Your task to perform on an android device: open app "Upside-Cash back on gas & food" (install if not already installed) and go to login screen Image 0: 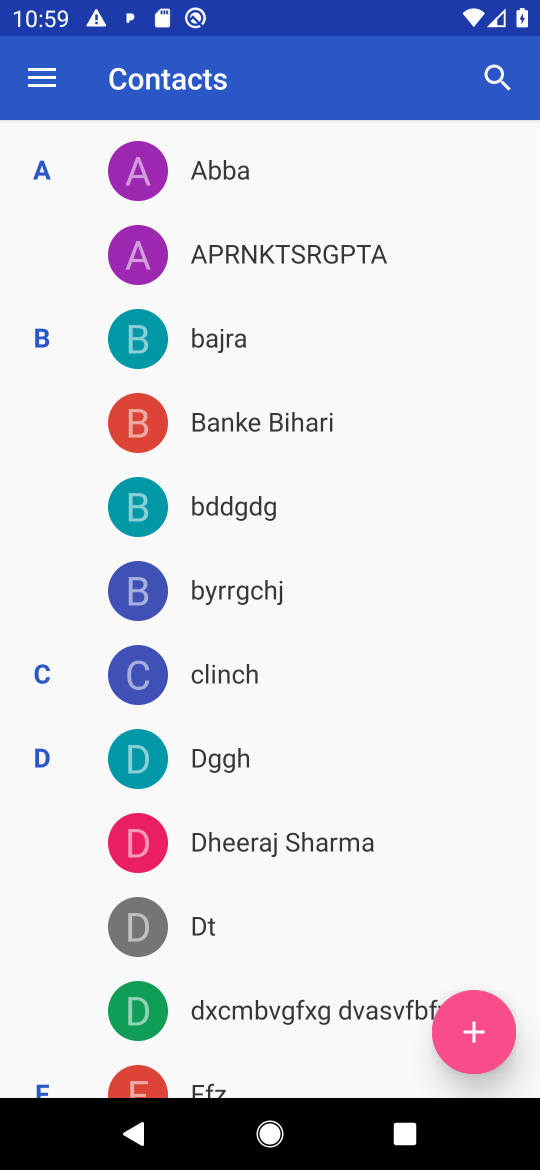
Step 0: press home button
Your task to perform on an android device: open app "Upside-Cash back on gas & food" (install if not already installed) and go to login screen Image 1: 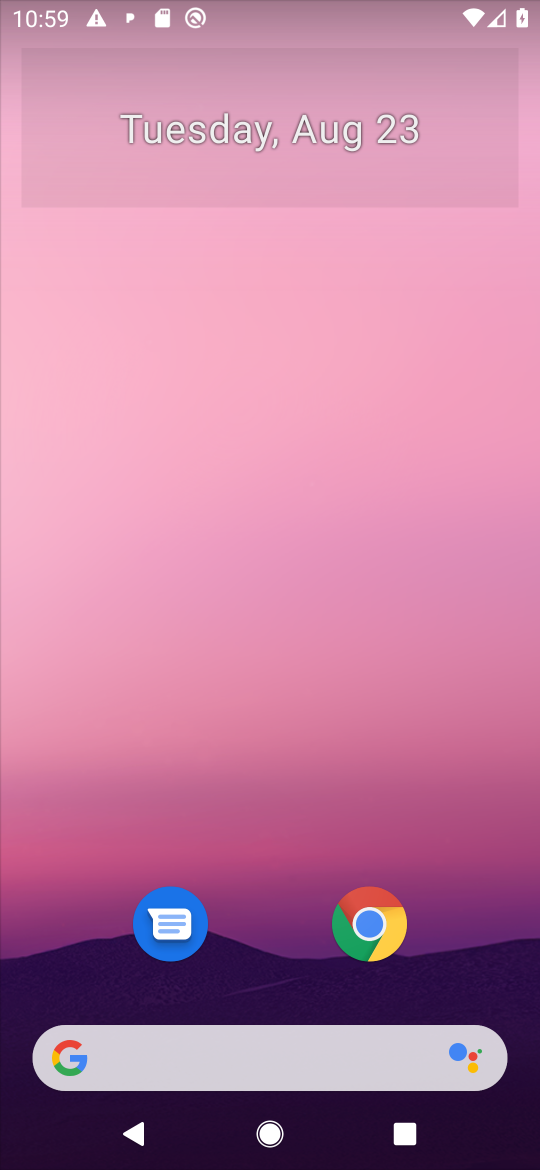
Step 1: drag from (457, 946) to (441, 125)
Your task to perform on an android device: open app "Upside-Cash back on gas & food" (install if not already installed) and go to login screen Image 2: 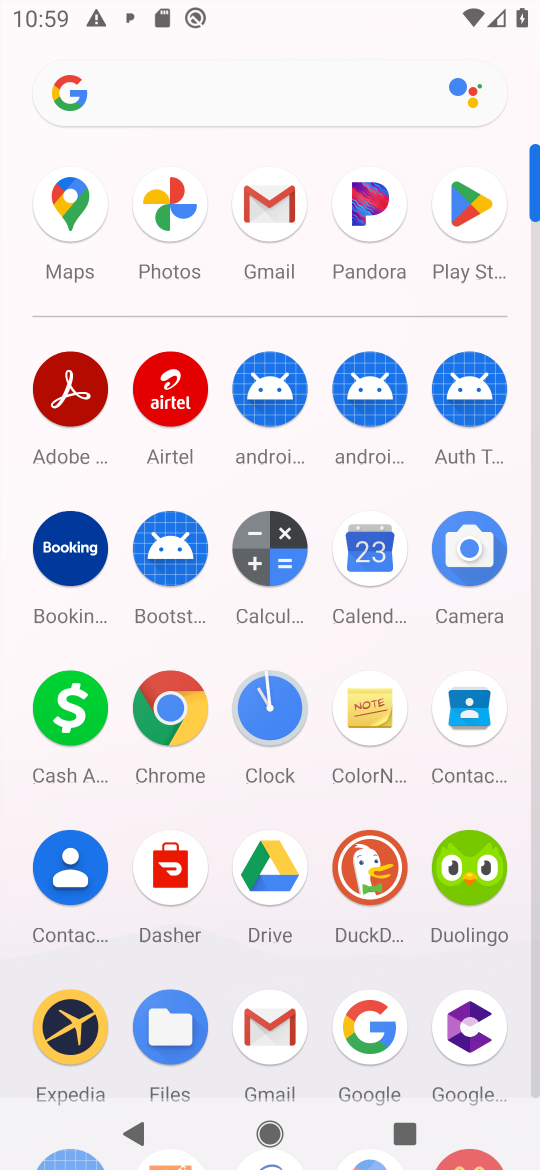
Step 2: click (480, 207)
Your task to perform on an android device: open app "Upside-Cash back on gas & food" (install if not already installed) and go to login screen Image 3: 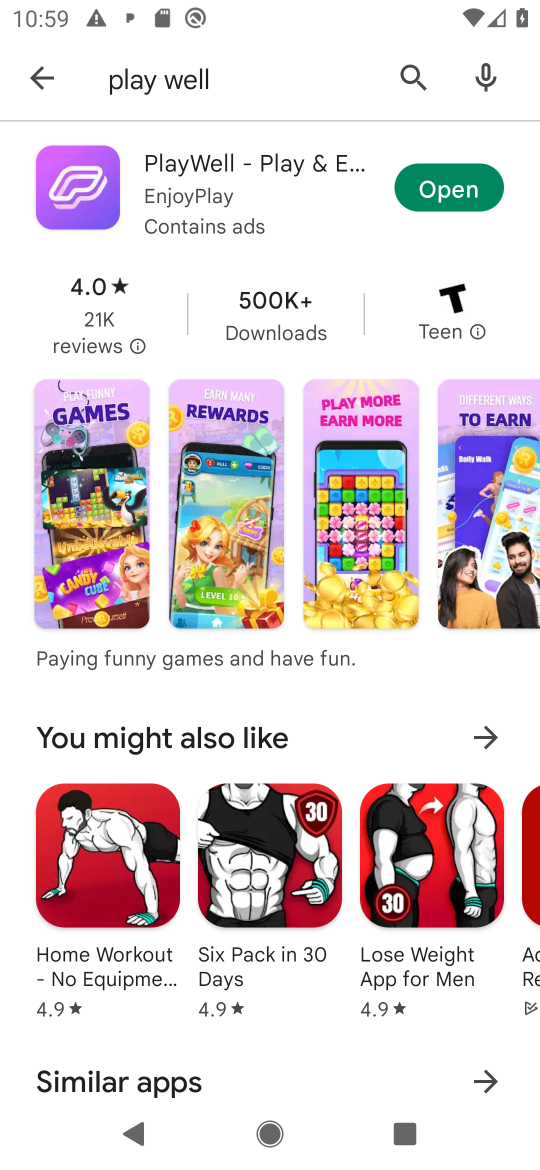
Step 3: press back button
Your task to perform on an android device: open app "Upside-Cash back on gas & food" (install if not already installed) and go to login screen Image 4: 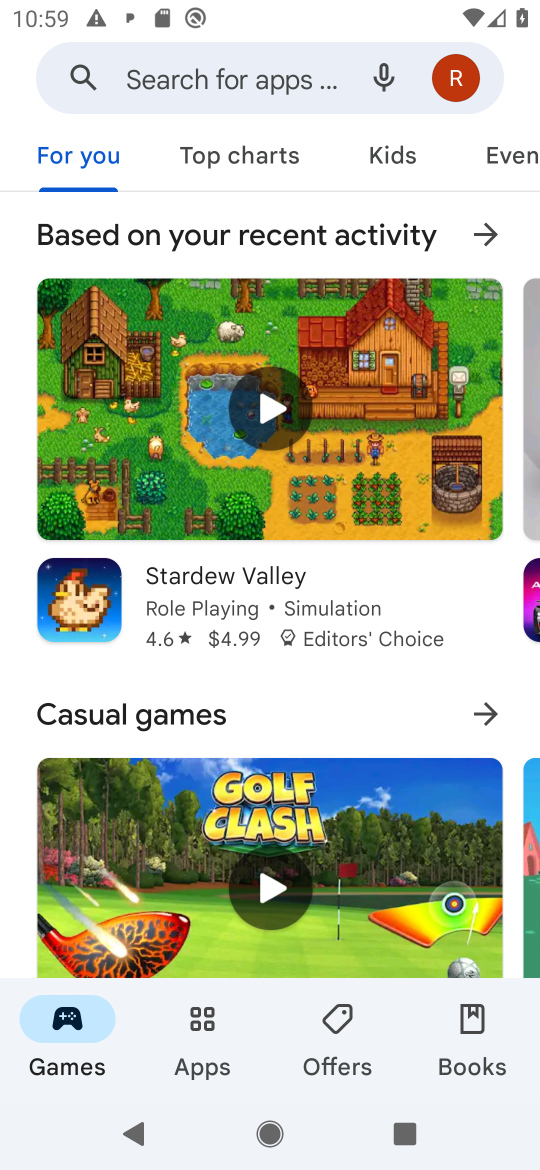
Step 4: click (277, 83)
Your task to perform on an android device: open app "Upside-Cash back on gas & food" (install if not already installed) and go to login screen Image 5: 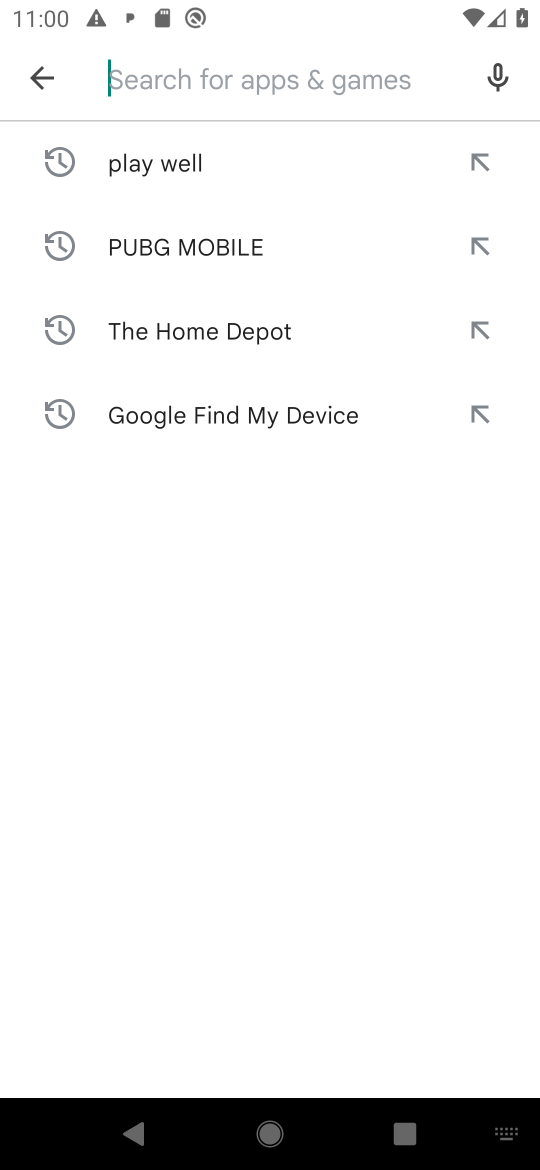
Step 5: press enter
Your task to perform on an android device: open app "Upside-Cash back on gas & food" (install if not already installed) and go to login screen Image 6: 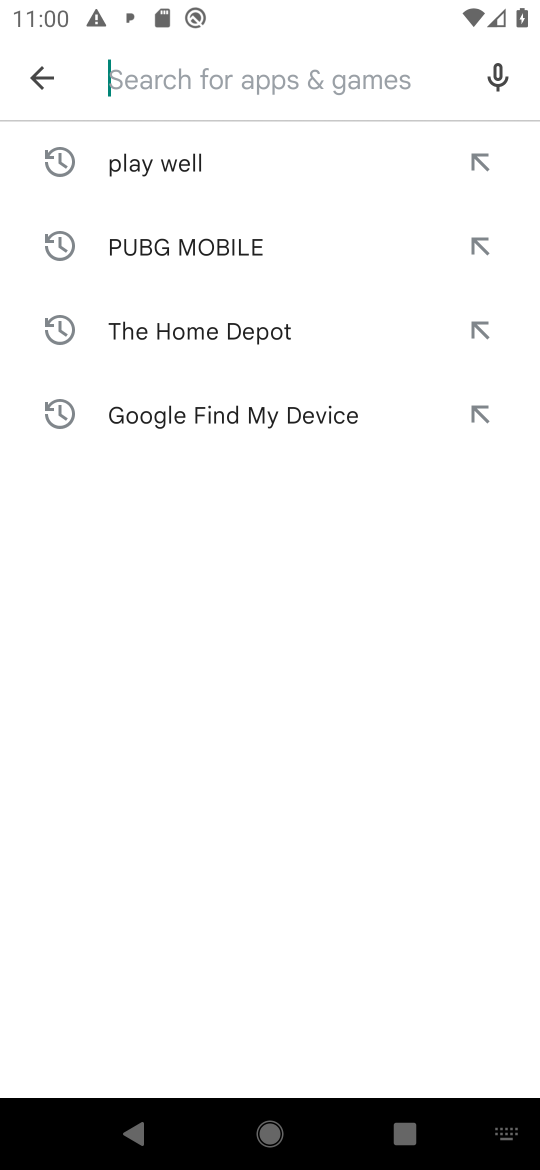
Step 6: type "Upside-Cash back on gas & food"
Your task to perform on an android device: open app "Upside-Cash back on gas & food" (install if not already installed) and go to login screen Image 7: 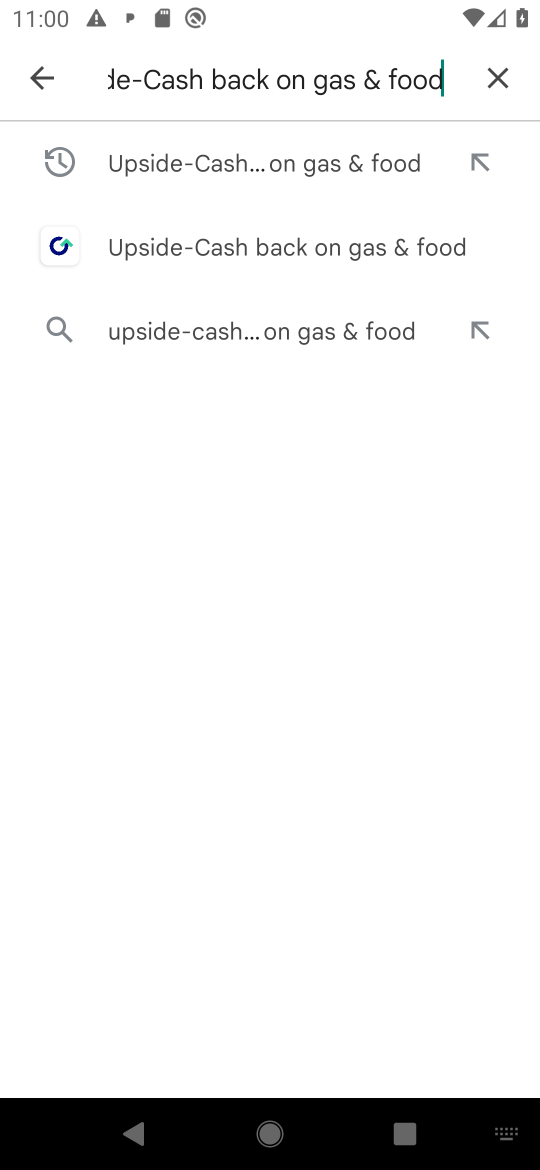
Step 7: click (396, 248)
Your task to perform on an android device: open app "Upside-Cash back on gas & food" (install if not already installed) and go to login screen Image 8: 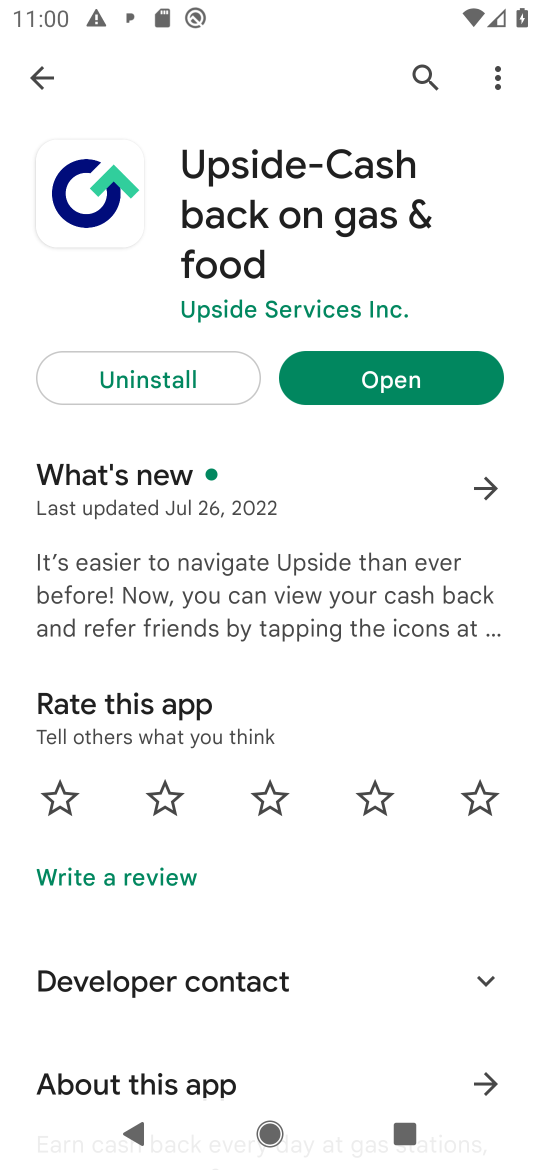
Step 8: click (422, 384)
Your task to perform on an android device: open app "Upside-Cash back on gas & food" (install if not already installed) and go to login screen Image 9: 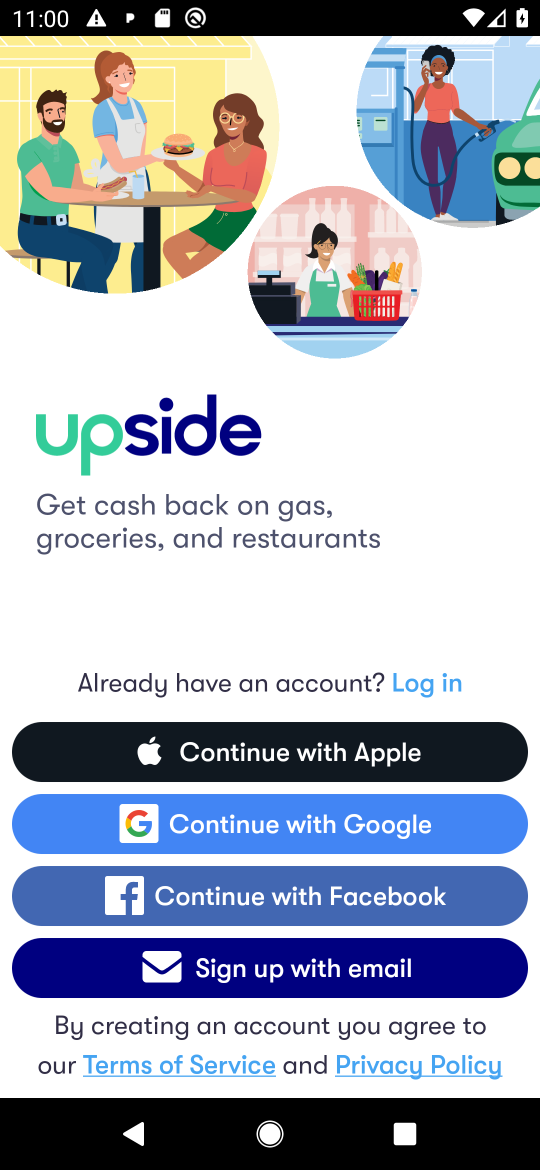
Step 9: task complete